Your task to perform on an android device: find snoozed emails in the gmail app Image 0: 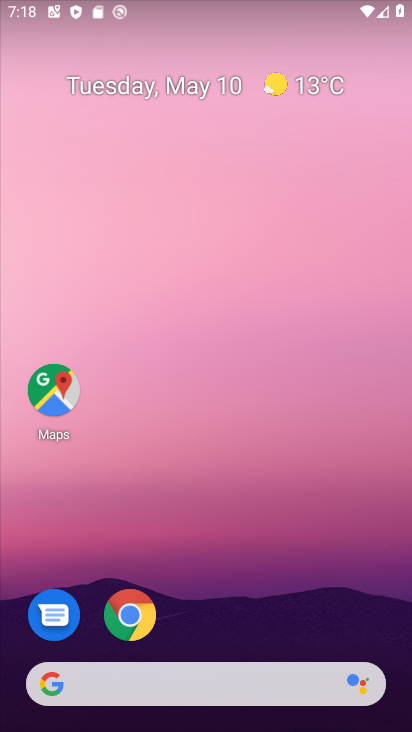
Step 0: drag from (317, 594) to (329, 44)
Your task to perform on an android device: find snoozed emails in the gmail app Image 1: 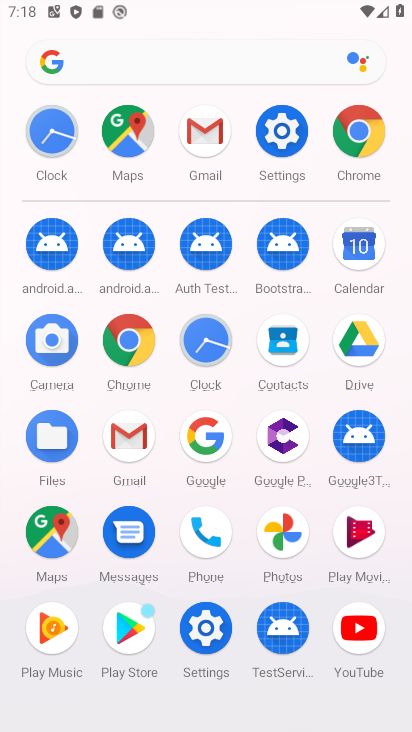
Step 1: click (189, 132)
Your task to perform on an android device: find snoozed emails in the gmail app Image 2: 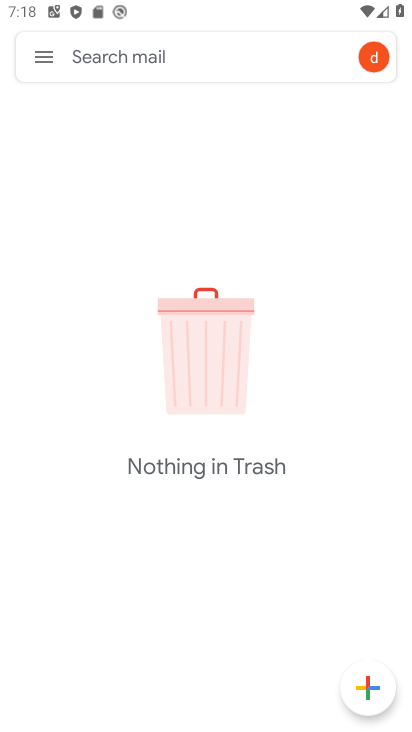
Step 2: click (47, 71)
Your task to perform on an android device: find snoozed emails in the gmail app Image 3: 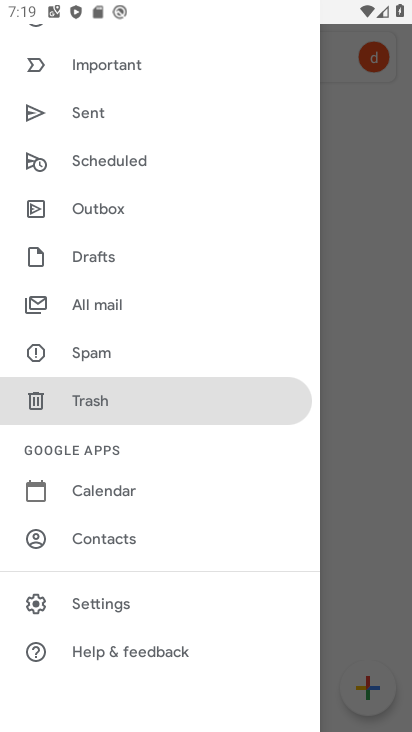
Step 3: drag from (145, 568) to (236, 231)
Your task to perform on an android device: find snoozed emails in the gmail app Image 4: 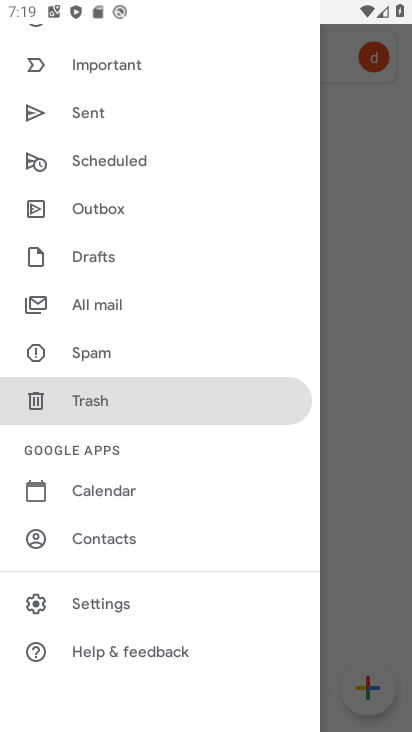
Step 4: drag from (171, 541) to (178, 161)
Your task to perform on an android device: find snoozed emails in the gmail app Image 5: 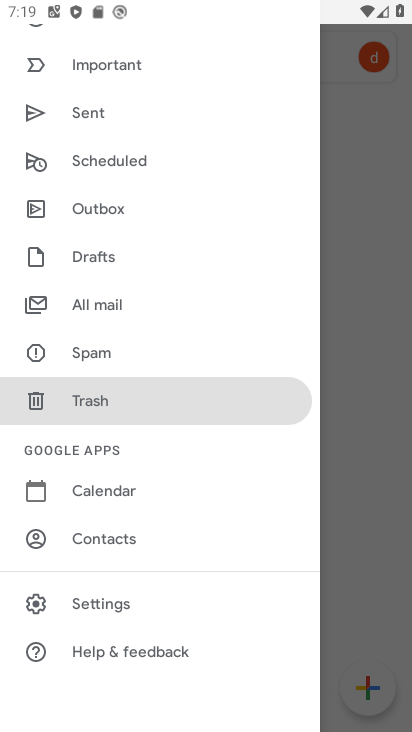
Step 5: drag from (161, 248) to (152, 673)
Your task to perform on an android device: find snoozed emails in the gmail app Image 6: 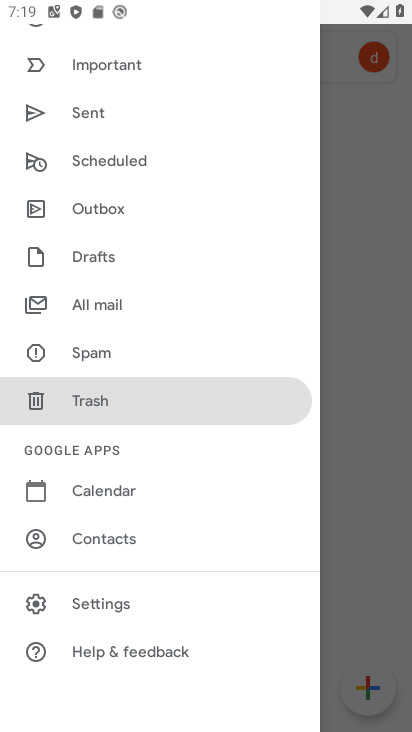
Step 6: drag from (136, 29) to (118, 539)
Your task to perform on an android device: find snoozed emails in the gmail app Image 7: 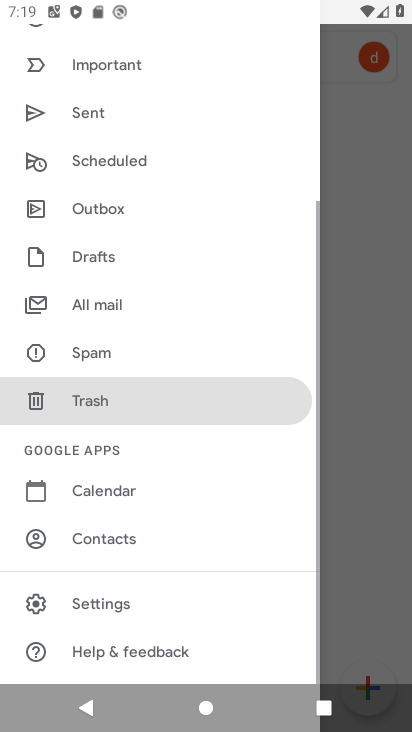
Step 7: drag from (108, 221) to (116, 651)
Your task to perform on an android device: find snoozed emails in the gmail app Image 8: 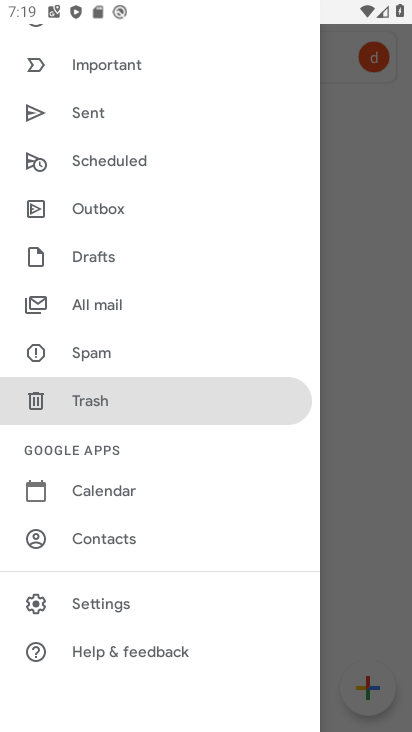
Step 8: drag from (107, 124) to (173, 477)
Your task to perform on an android device: find snoozed emails in the gmail app Image 9: 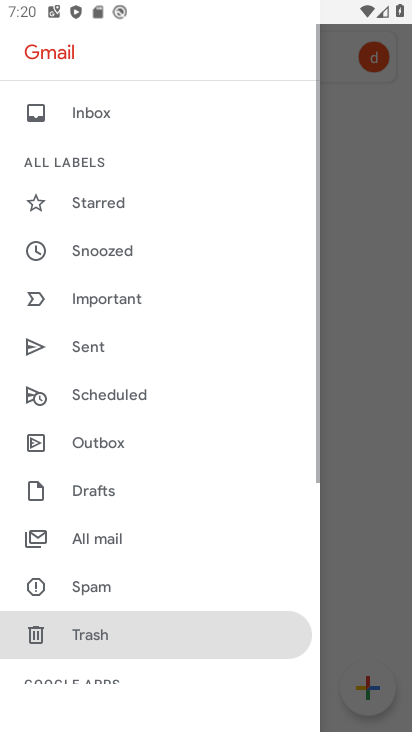
Step 9: click (77, 252)
Your task to perform on an android device: find snoozed emails in the gmail app Image 10: 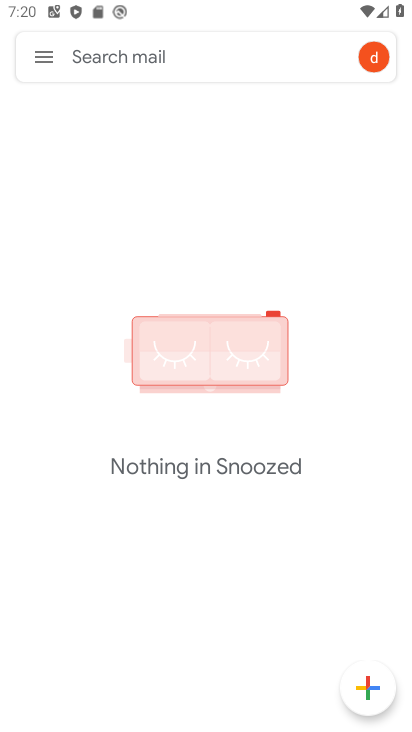
Step 10: task complete